Your task to perform on an android device: Add energizer triple a to the cart on newegg, then select checkout. Image 0: 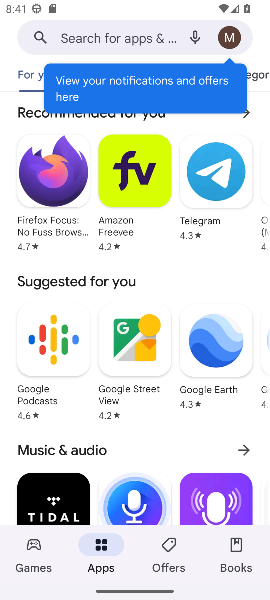
Step 0: press home button
Your task to perform on an android device: Add energizer triple a to the cart on newegg, then select checkout. Image 1: 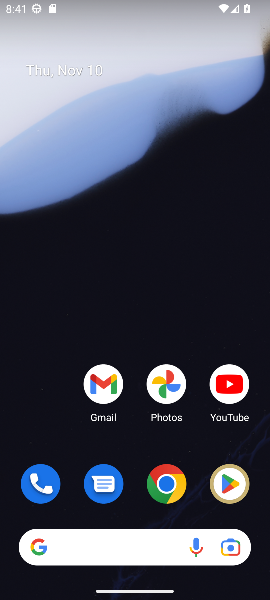
Step 1: click (169, 481)
Your task to perform on an android device: Add energizer triple a to the cart on newegg, then select checkout. Image 2: 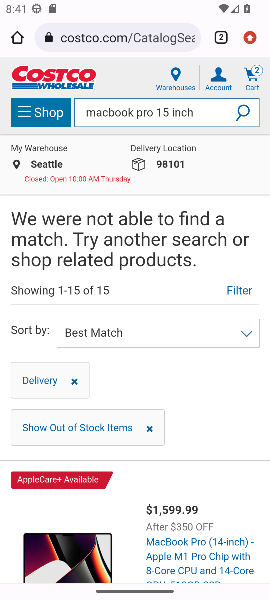
Step 2: click (117, 39)
Your task to perform on an android device: Add energizer triple a to the cart on newegg, then select checkout. Image 3: 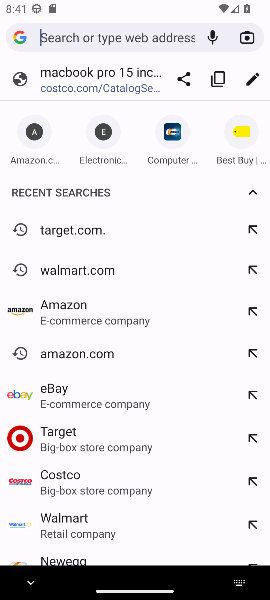
Step 3: type "newegg.com"
Your task to perform on an android device: Add energizer triple a to the cart on newegg, then select checkout. Image 4: 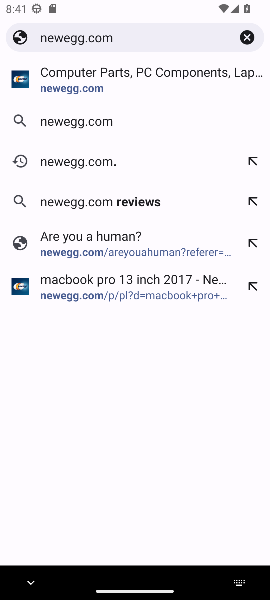
Step 4: click (69, 92)
Your task to perform on an android device: Add energizer triple a to the cart on newegg, then select checkout. Image 5: 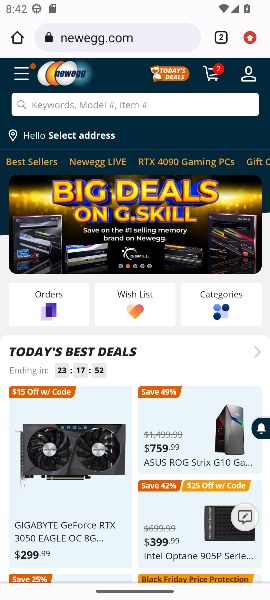
Step 5: click (59, 106)
Your task to perform on an android device: Add energizer triple a to the cart on newegg, then select checkout. Image 6: 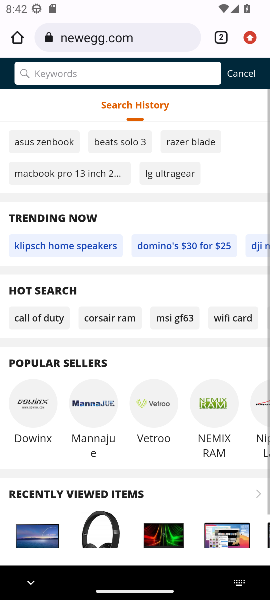
Step 6: type "energizer triple a"
Your task to perform on an android device: Add energizer triple a to the cart on newegg, then select checkout. Image 7: 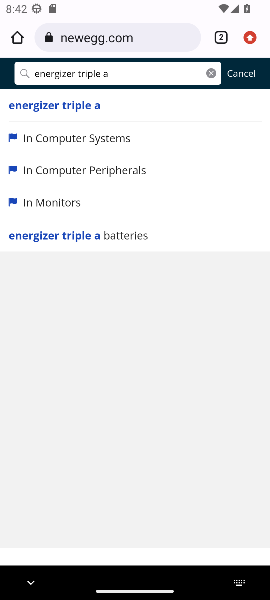
Step 7: click (42, 109)
Your task to perform on an android device: Add energizer triple a to the cart on newegg, then select checkout. Image 8: 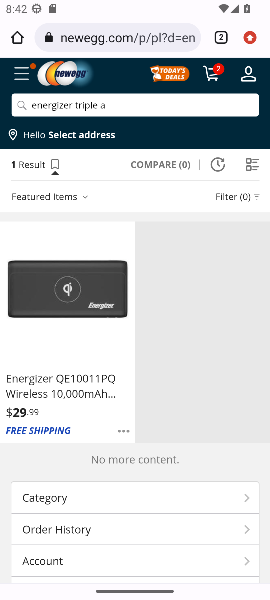
Step 8: task complete